Your task to perform on an android device: toggle airplane mode Image 0: 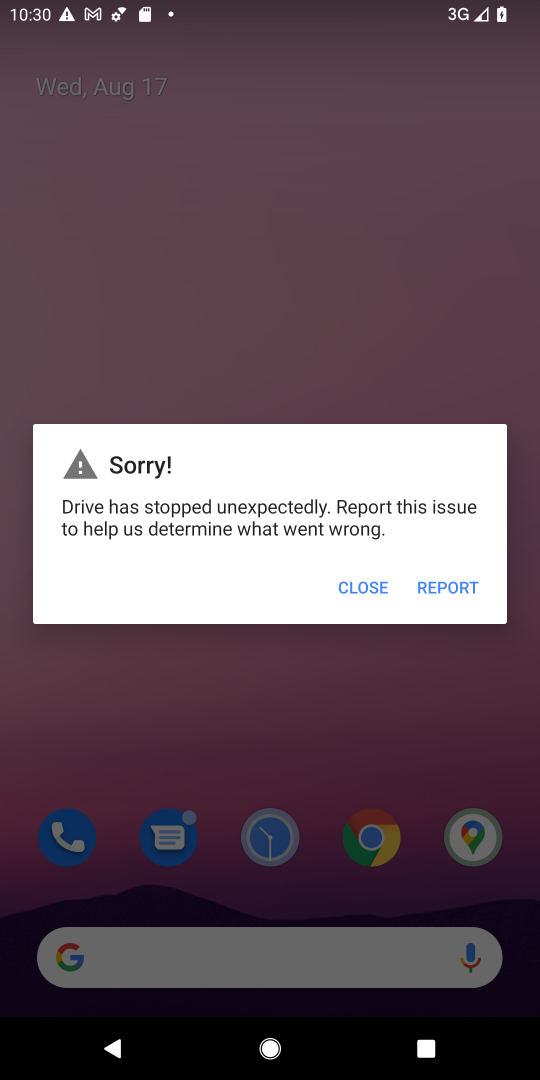
Step 0: press home button
Your task to perform on an android device: toggle airplane mode Image 1: 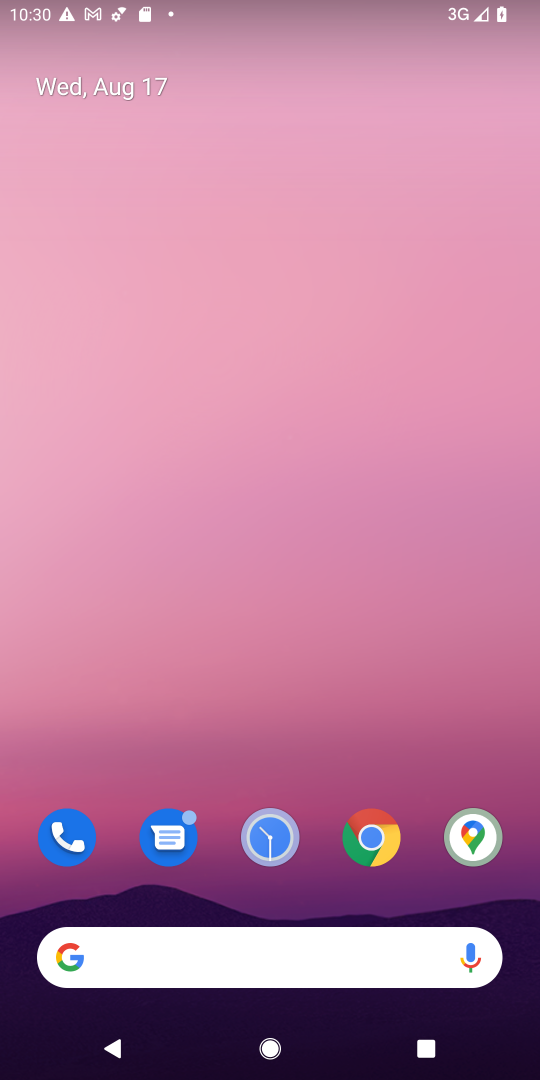
Step 1: drag from (218, 966) to (391, 312)
Your task to perform on an android device: toggle airplane mode Image 2: 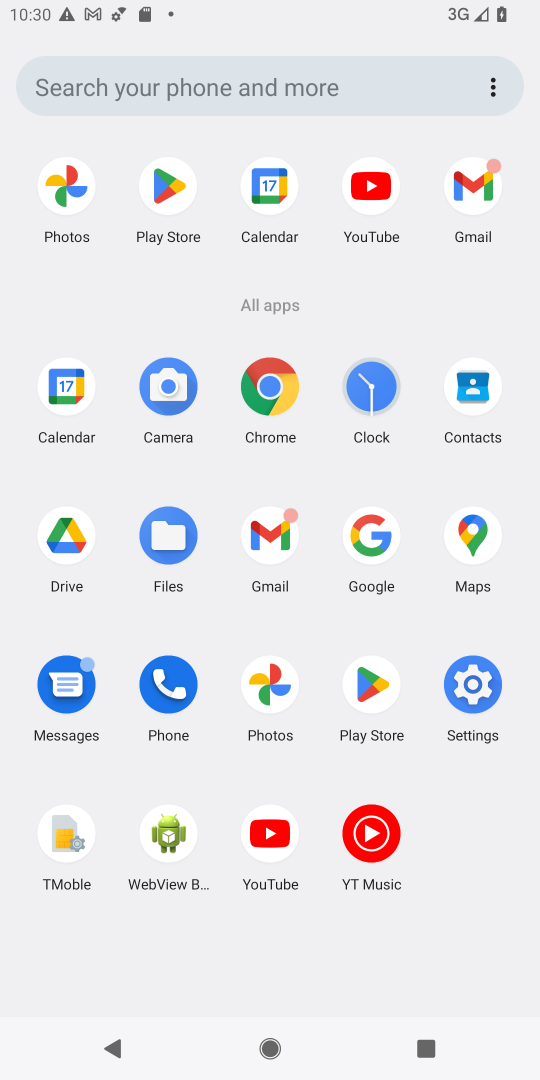
Step 2: click (473, 685)
Your task to perform on an android device: toggle airplane mode Image 3: 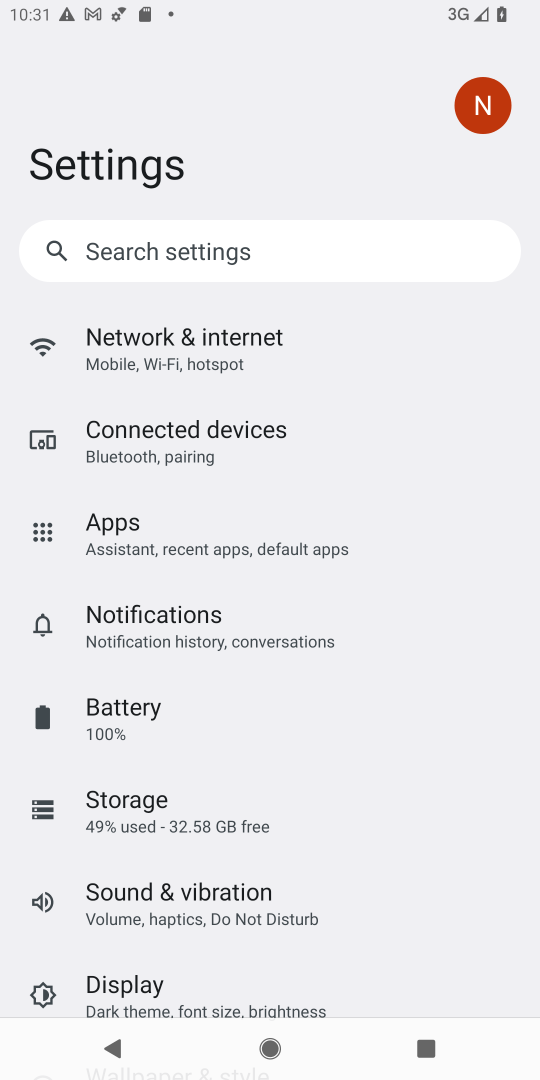
Step 3: click (192, 353)
Your task to perform on an android device: toggle airplane mode Image 4: 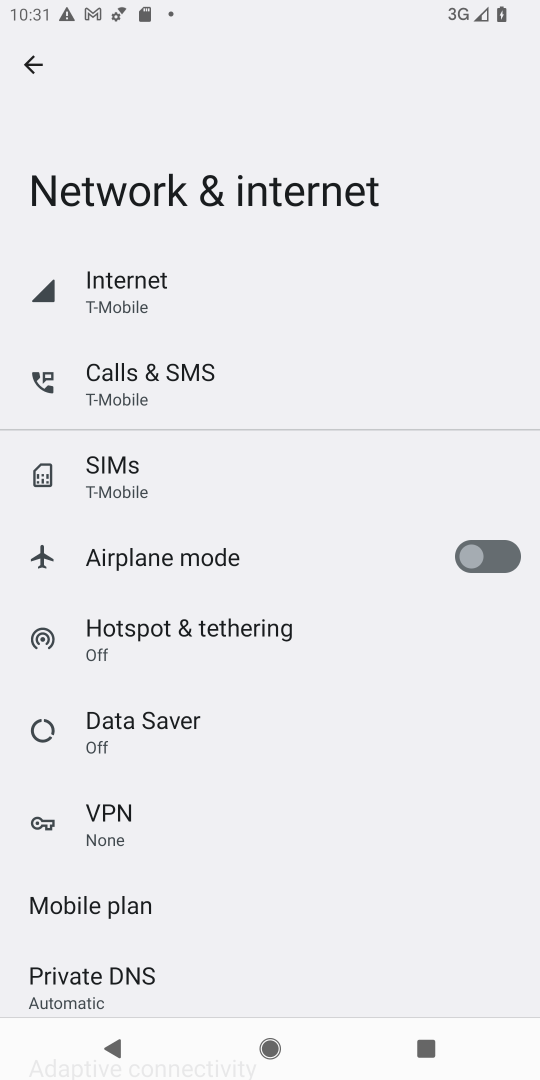
Step 4: click (470, 552)
Your task to perform on an android device: toggle airplane mode Image 5: 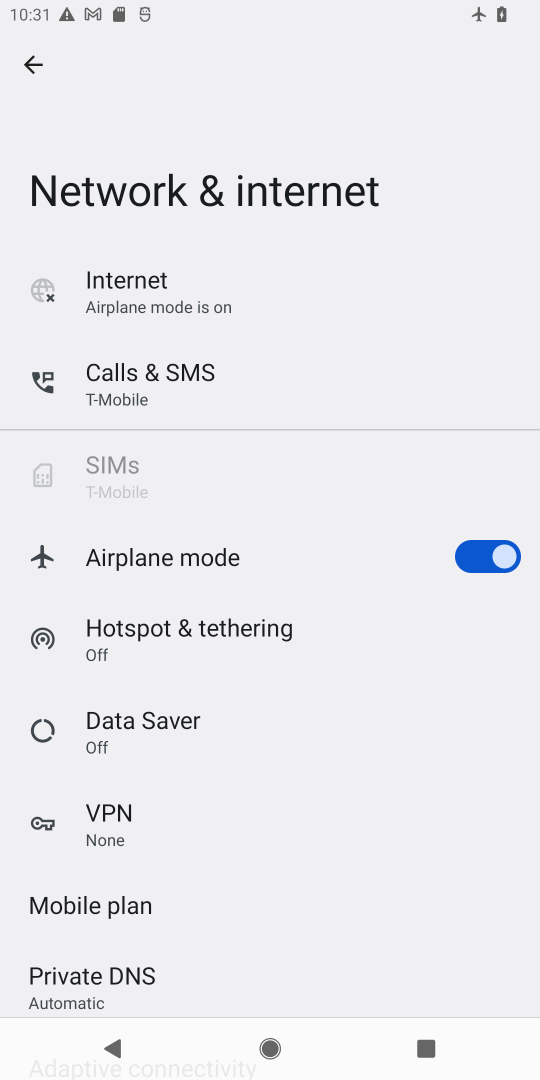
Step 5: task complete